Your task to perform on an android device: Open battery settings Image 0: 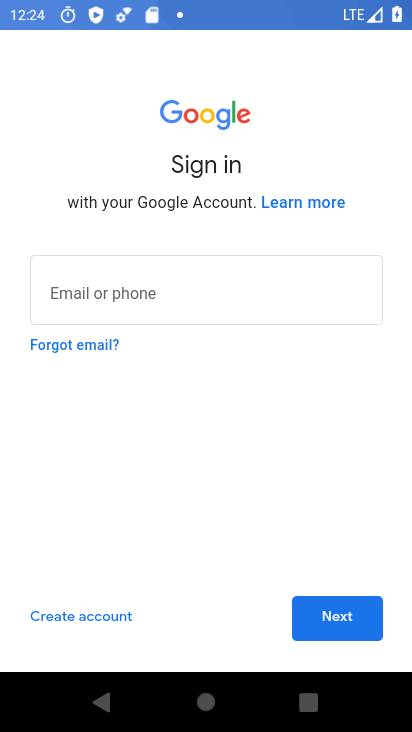
Step 0: press home button
Your task to perform on an android device: Open battery settings Image 1: 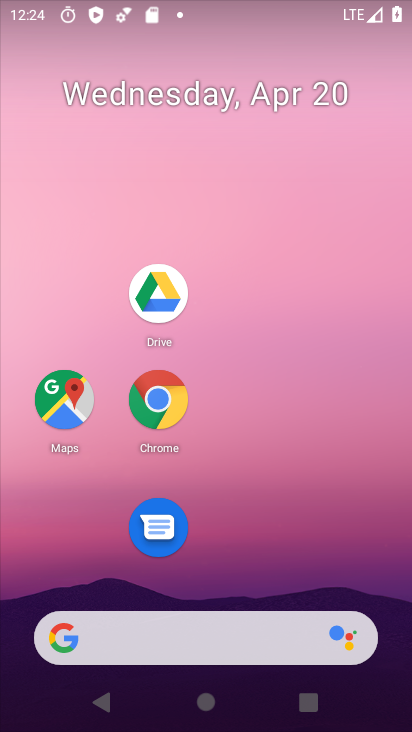
Step 1: drag from (195, 697) to (113, 264)
Your task to perform on an android device: Open battery settings Image 2: 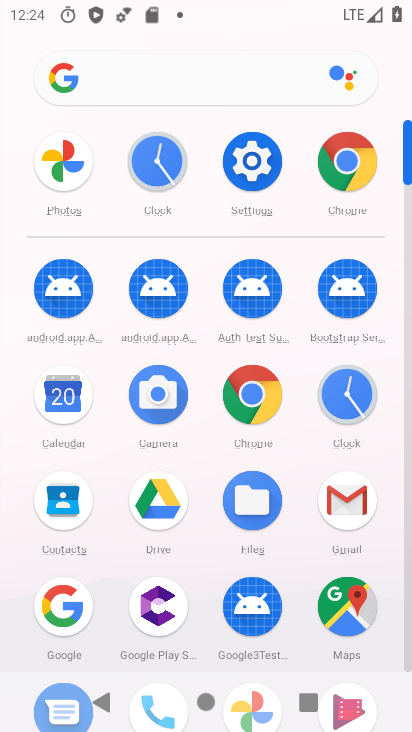
Step 2: click (258, 192)
Your task to perform on an android device: Open battery settings Image 3: 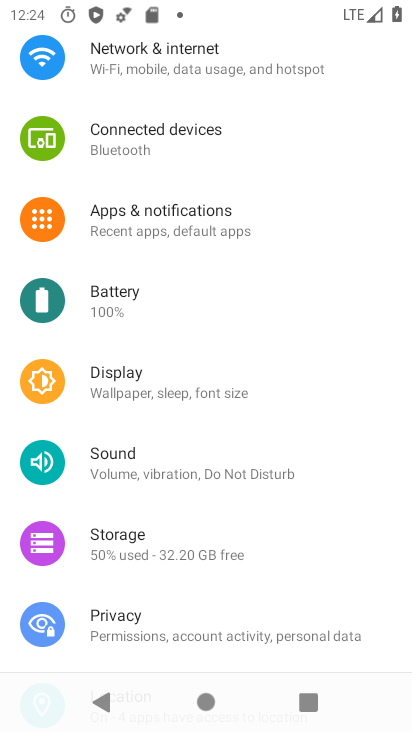
Step 3: drag from (216, 548) to (219, 187)
Your task to perform on an android device: Open battery settings Image 4: 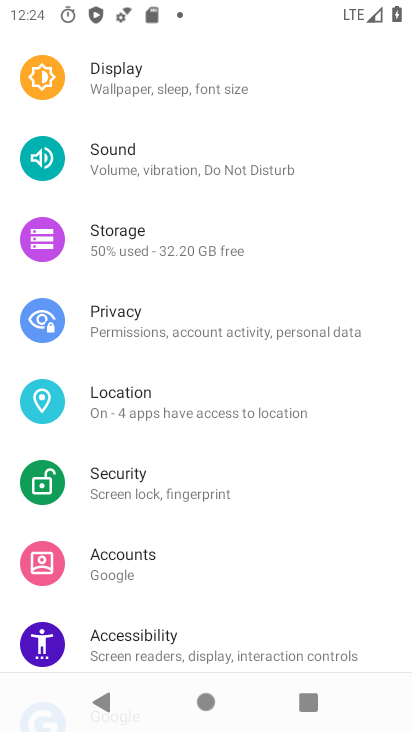
Step 4: drag from (199, 554) to (173, 186)
Your task to perform on an android device: Open battery settings Image 5: 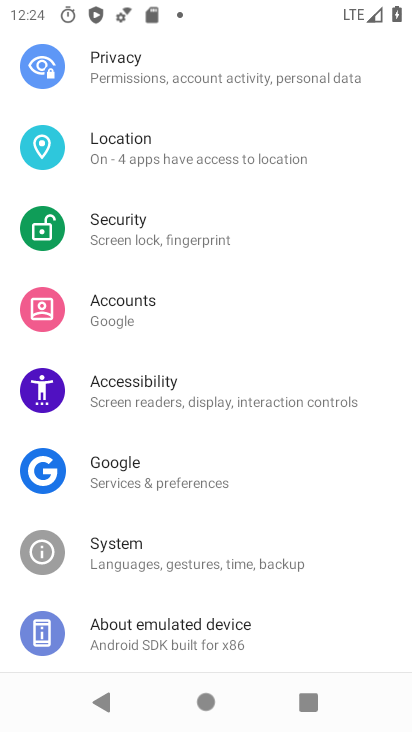
Step 5: drag from (191, 551) to (233, 608)
Your task to perform on an android device: Open battery settings Image 6: 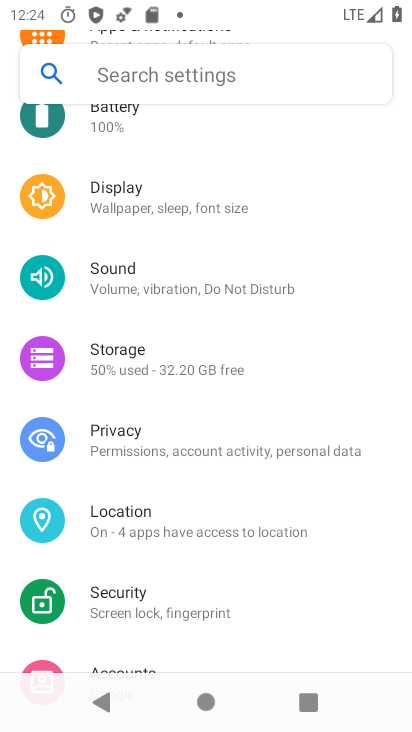
Step 6: drag from (147, 253) to (198, 487)
Your task to perform on an android device: Open battery settings Image 7: 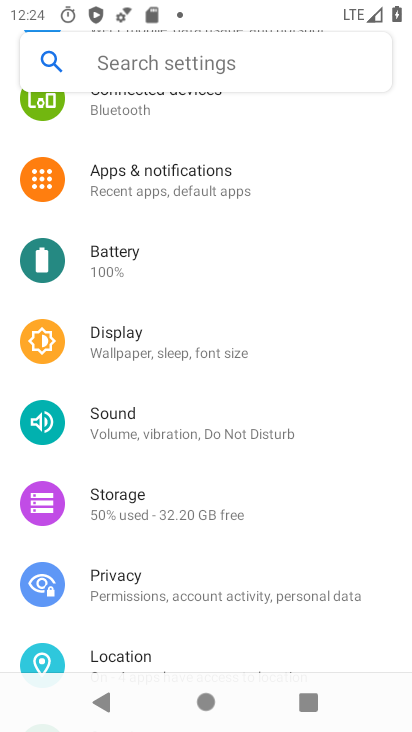
Step 7: click (121, 277)
Your task to perform on an android device: Open battery settings Image 8: 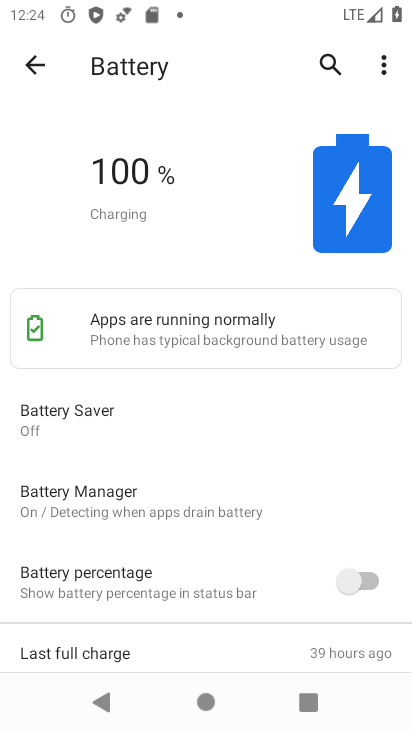
Step 8: task complete